Your task to perform on an android device: What's the weather? Image 0: 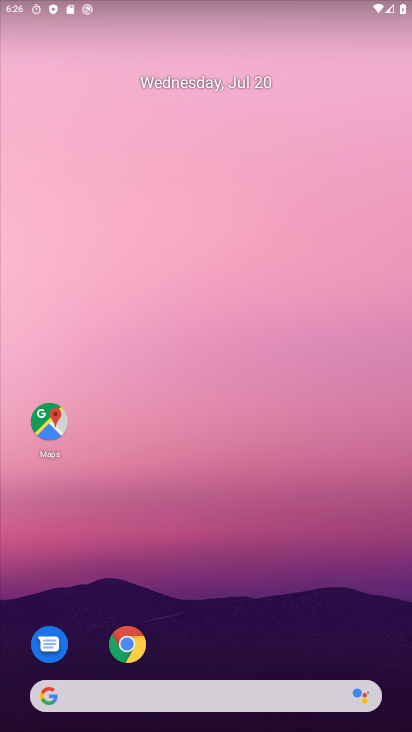
Step 0: press home button
Your task to perform on an android device: What's the weather? Image 1: 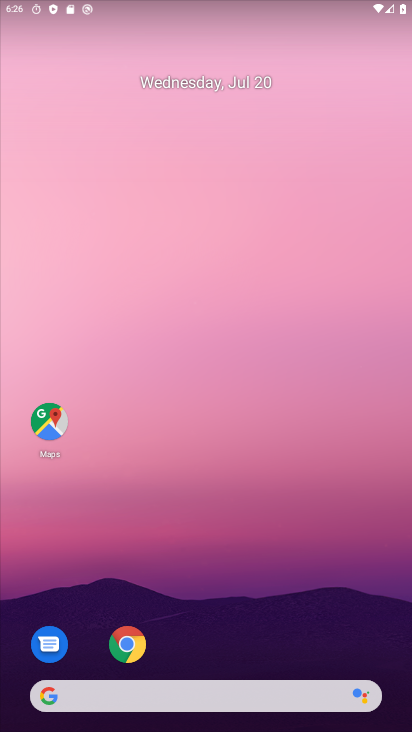
Step 1: click (47, 703)
Your task to perform on an android device: What's the weather? Image 2: 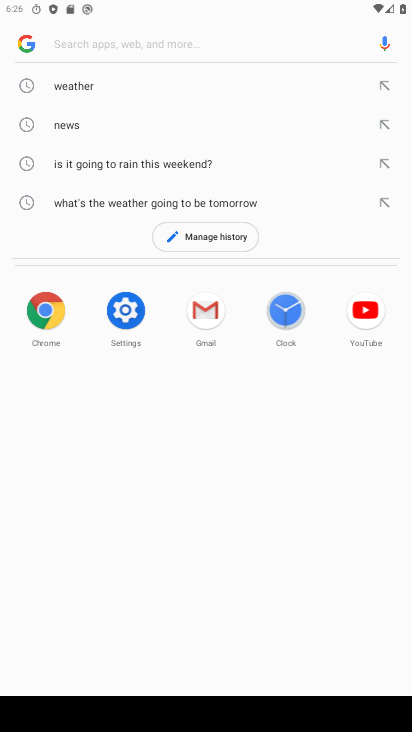
Step 2: click (89, 85)
Your task to perform on an android device: What's the weather? Image 3: 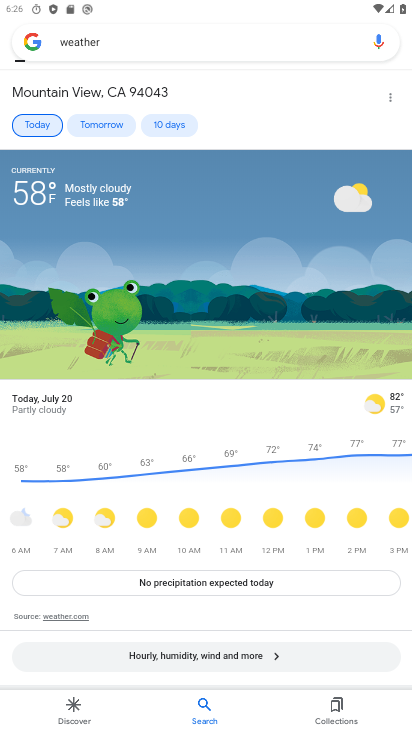
Step 3: task complete